Your task to perform on an android device: see sites visited before in the chrome app Image 0: 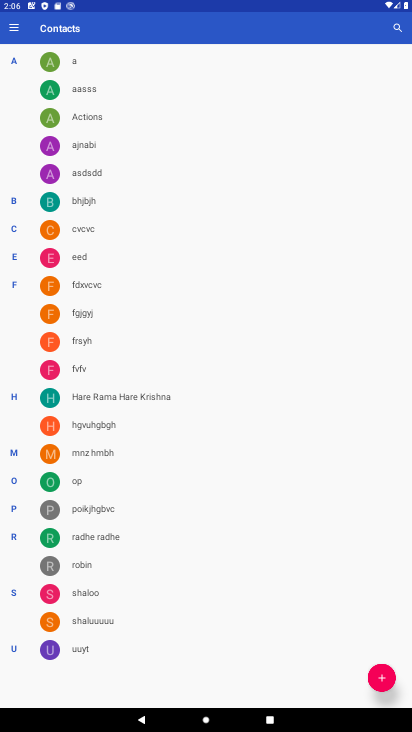
Step 0: press home button
Your task to perform on an android device: see sites visited before in the chrome app Image 1: 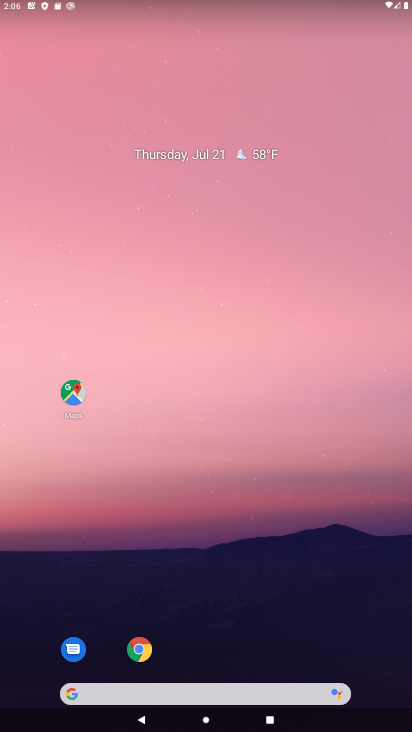
Step 1: click (142, 647)
Your task to perform on an android device: see sites visited before in the chrome app Image 2: 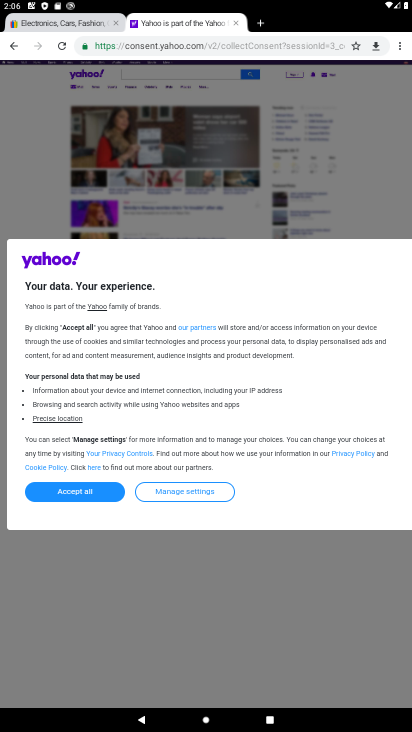
Step 2: click (399, 40)
Your task to perform on an android device: see sites visited before in the chrome app Image 3: 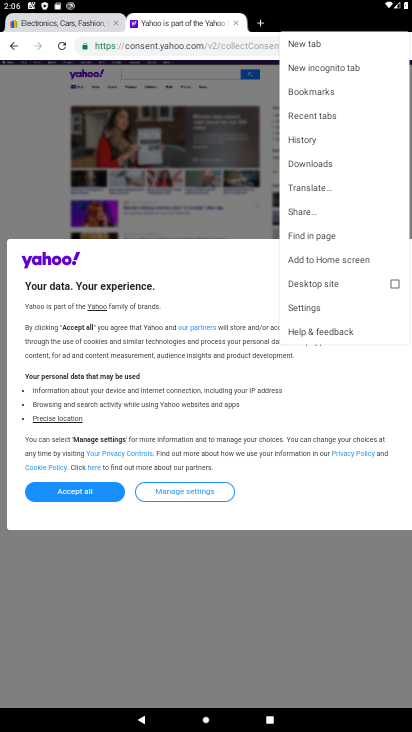
Step 3: click (319, 122)
Your task to perform on an android device: see sites visited before in the chrome app Image 4: 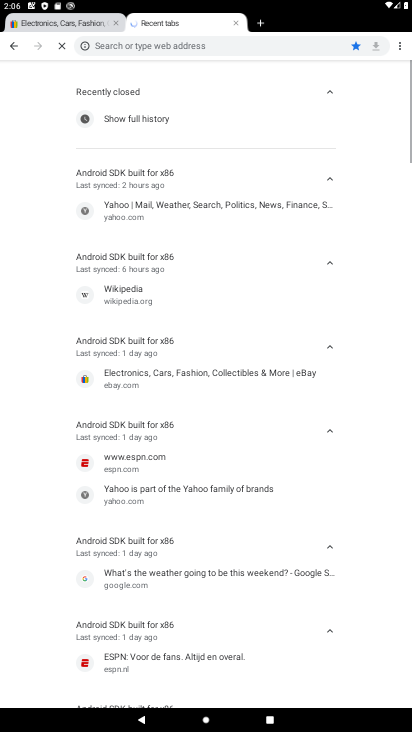
Step 4: task complete